Your task to perform on an android device: Go to sound settings Image 0: 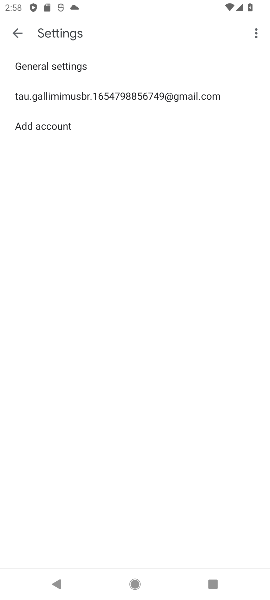
Step 0: press home button
Your task to perform on an android device: Go to sound settings Image 1: 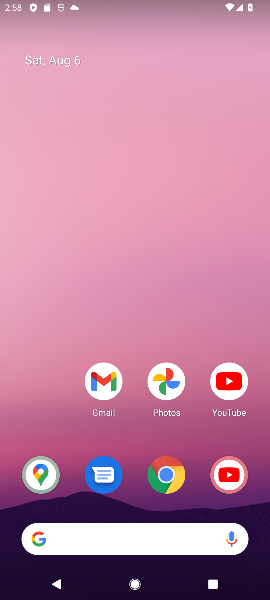
Step 1: click (26, 578)
Your task to perform on an android device: Go to sound settings Image 2: 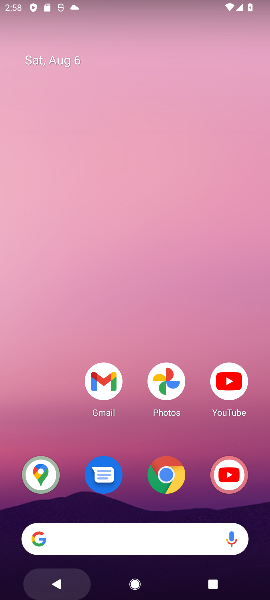
Step 2: drag from (26, 578) to (75, 217)
Your task to perform on an android device: Go to sound settings Image 3: 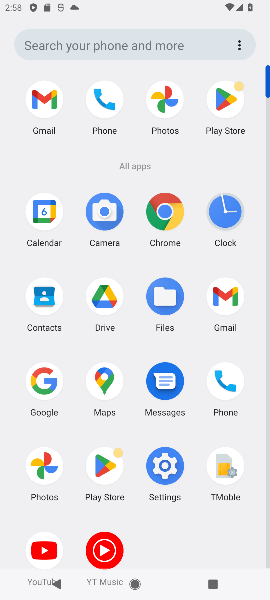
Step 3: click (178, 455)
Your task to perform on an android device: Go to sound settings Image 4: 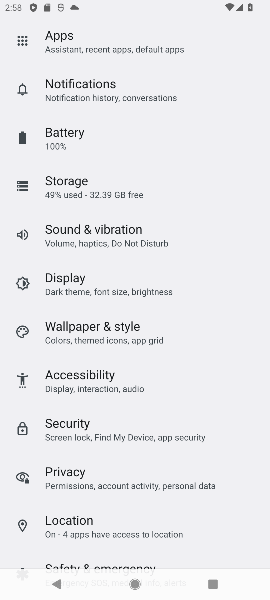
Step 4: click (68, 235)
Your task to perform on an android device: Go to sound settings Image 5: 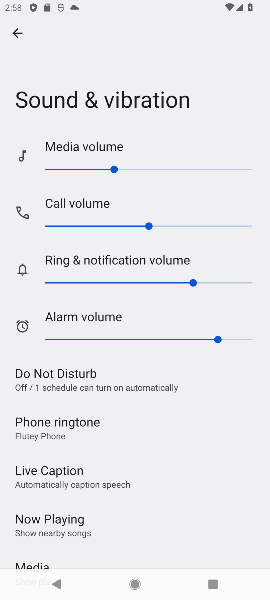
Step 5: task complete